Your task to perform on an android device: manage bookmarks in the chrome app Image 0: 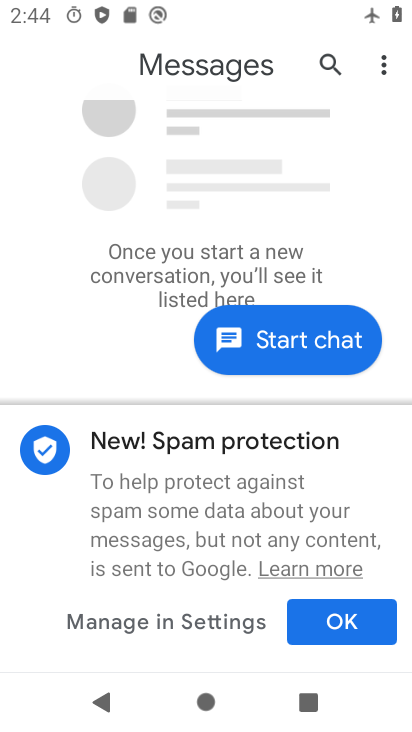
Step 0: press home button
Your task to perform on an android device: manage bookmarks in the chrome app Image 1: 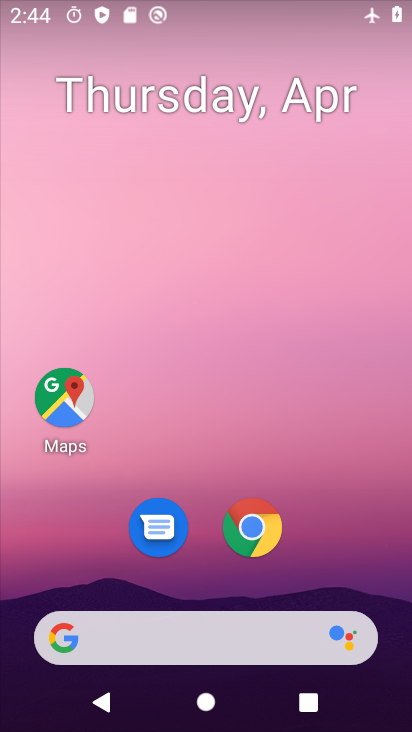
Step 1: click (243, 534)
Your task to perform on an android device: manage bookmarks in the chrome app Image 2: 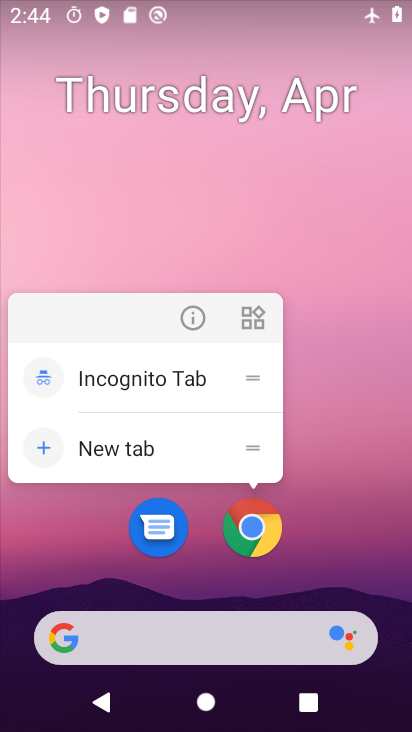
Step 2: click (321, 550)
Your task to perform on an android device: manage bookmarks in the chrome app Image 3: 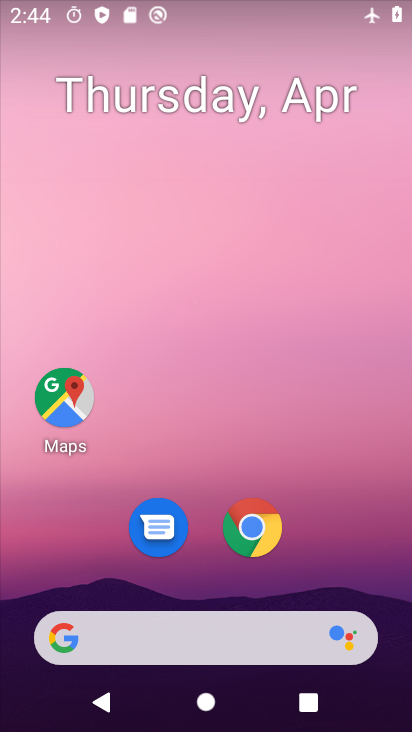
Step 3: click (256, 520)
Your task to perform on an android device: manage bookmarks in the chrome app Image 4: 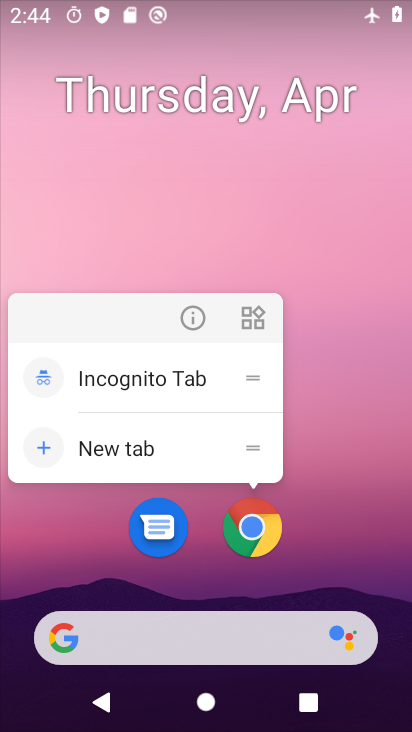
Step 4: click (249, 531)
Your task to perform on an android device: manage bookmarks in the chrome app Image 5: 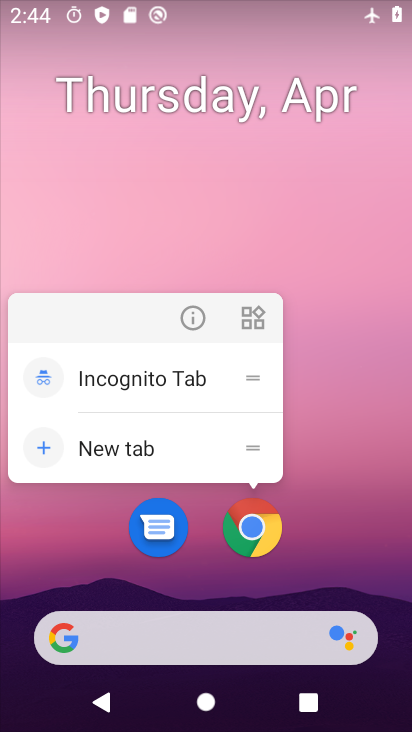
Step 5: click (333, 0)
Your task to perform on an android device: manage bookmarks in the chrome app Image 6: 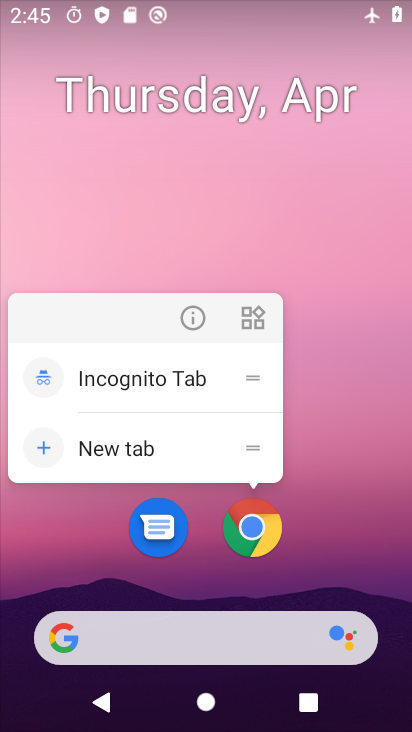
Step 6: drag from (365, 521) to (302, 18)
Your task to perform on an android device: manage bookmarks in the chrome app Image 7: 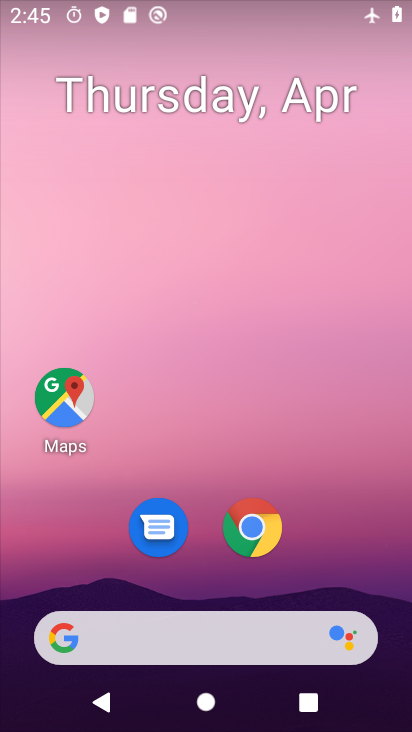
Step 7: drag from (292, 296) to (303, 55)
Your task to perform on an android device: manage bookmarks in the chrome app Image 8: 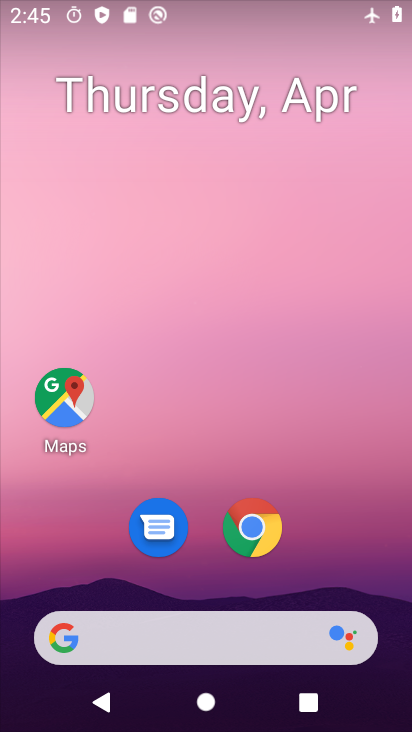
Step 8: drag from (301, 450) to (294, 106)
Your task to perform on an android device: manage bookmarks in the chrome app Image 9: 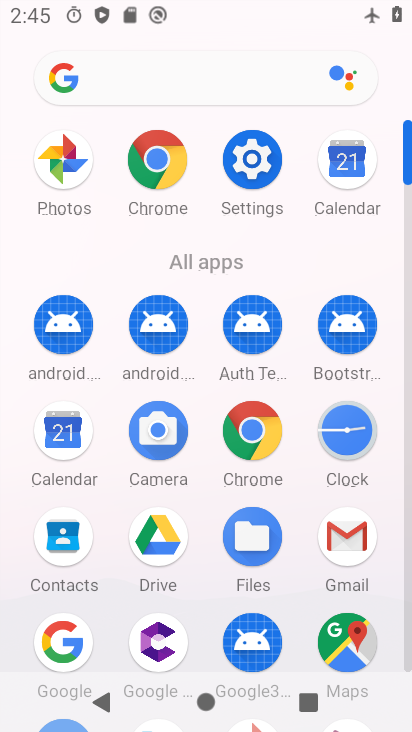
Step 9: click (261, 439)
Your task to perform on an android device: manage bookmarks in the chrome app Image 10: 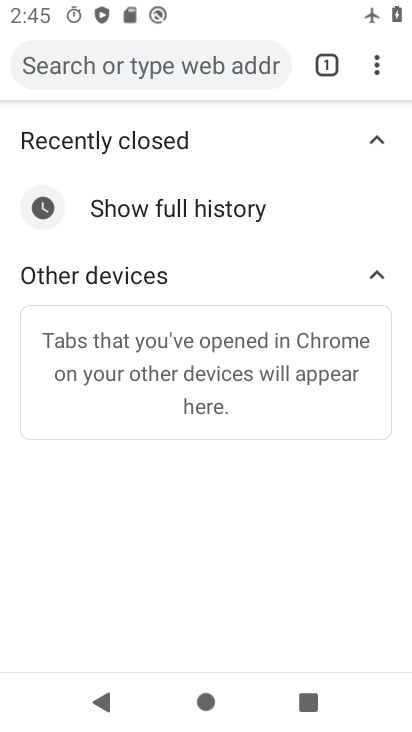
Step 10: task complete